Your task to perform on an android device: change keyboard looks Image 0: 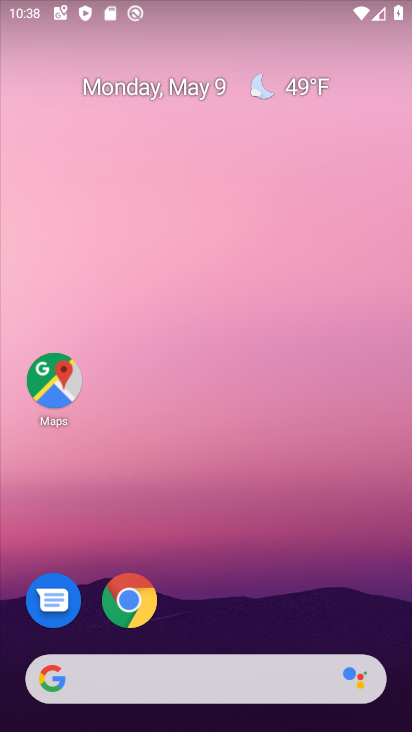
Step 0: drag from (353, 595) to (284, 13)
Your task to perform on an android device: change keyboard looks Image 1: 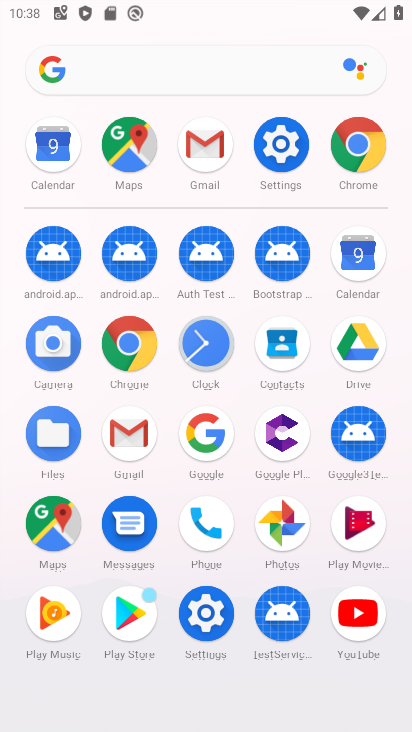
Step 1: click (209, 623)
Your task to perform on an android device: change keyboard looks Image 2: 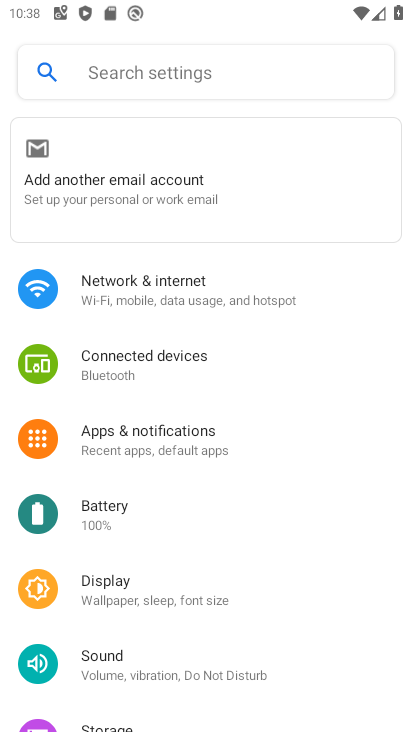
Step 2: drag from (173, 700) to (233, 333)
Your task to perform on an android device: change keyboard looks Image 3: 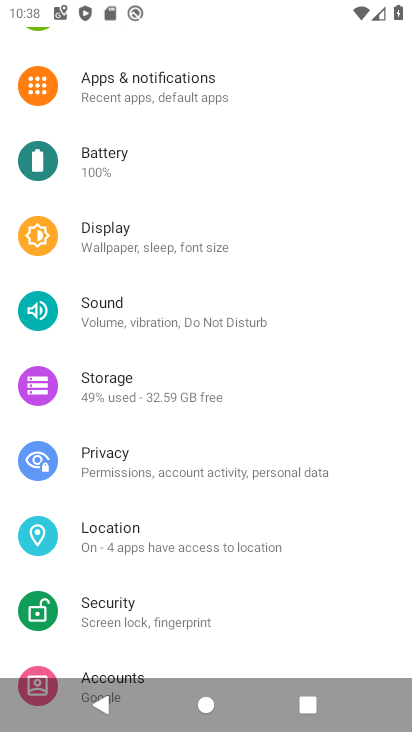
Step 3: drag from (294, 582) to (307, 177)
Your task to perform on an android device: change keyboard looks Image 4: 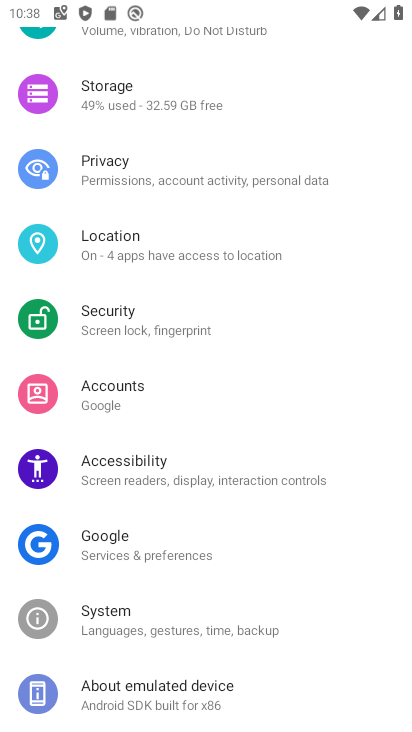
Step 4: click (177, 626)
Your task to perform on an android device: change keyboard looks Image 5: 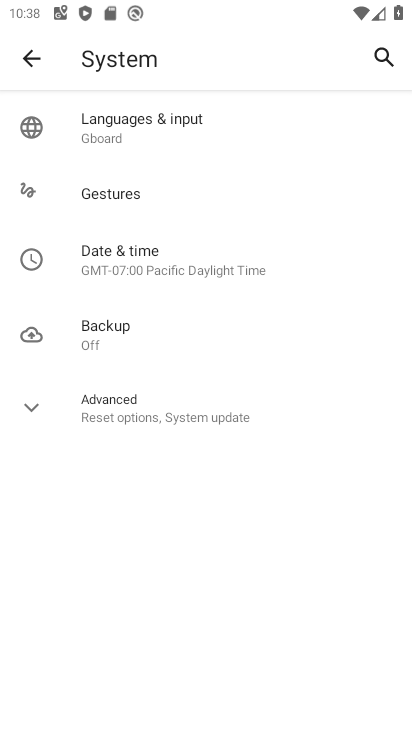
Step 5: click (176, 110)
Your task to perform on an android device: change keyboard looks Image 6: 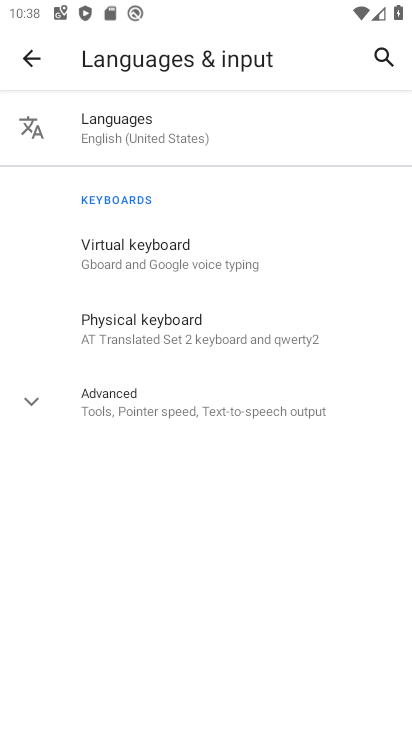
Step 6: click (129, 249)
Your task to perform on an android device: change keyboard looks Image 7: 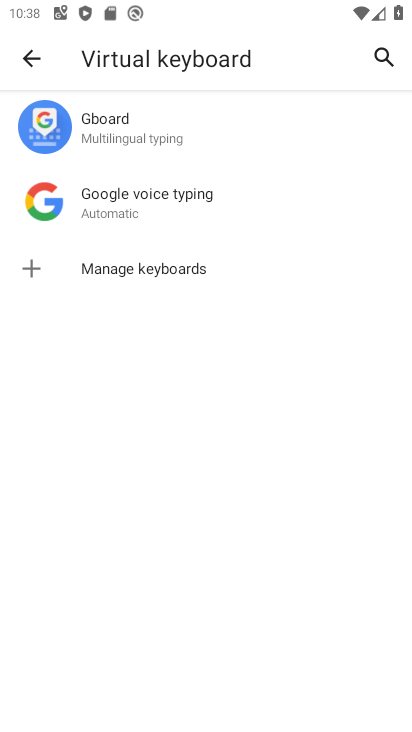
Step 7: click (107, 118)
Your task to perform on an android device: change keyboard looks Image 8: 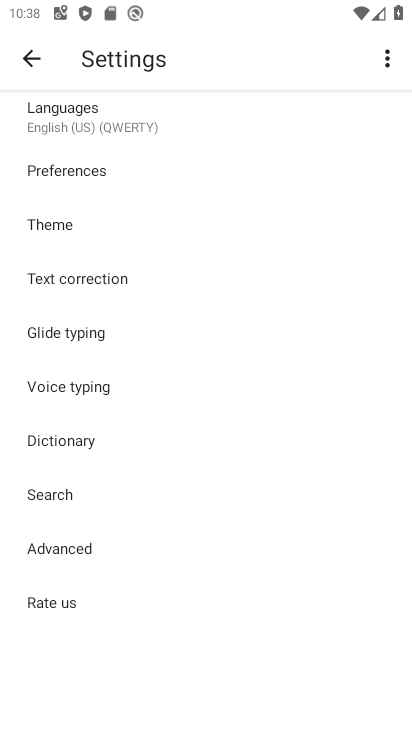
Step 8: click (102, 224)
Your task to perform on an android device: change keyboard looks Image 9: 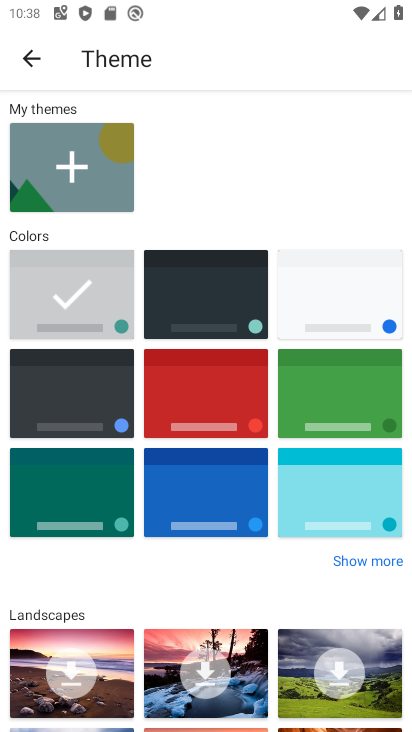
Step 9: click (245, 310)
Your task to perform on an android device: change keyboard looks Image 10: 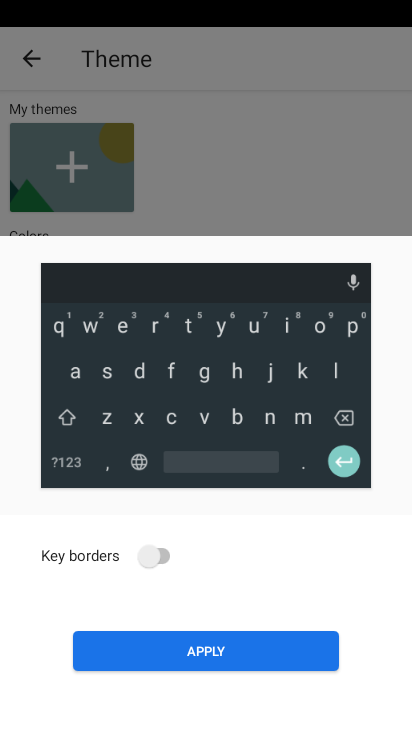
Step 10: click (248, 661)
Your task to perform on an android device: change keyboard looks Image 11: 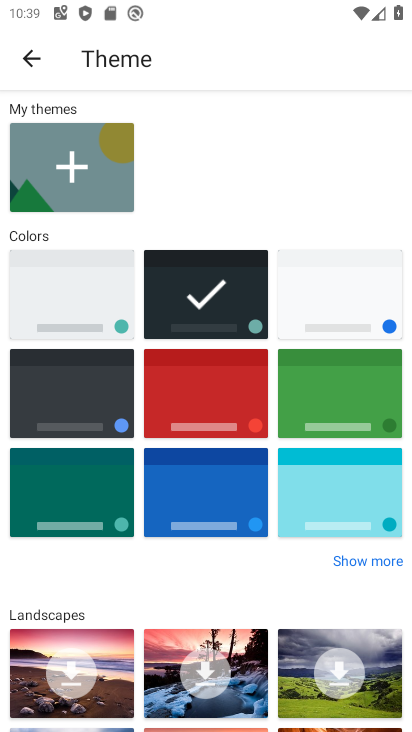
Step 11: task complete